Your task to perform on an android device: stop showing notifications on the lock screen Image 0: 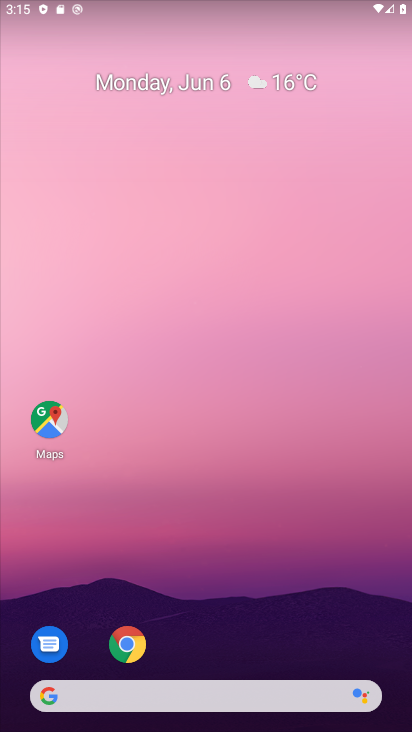
Step 0: drag from (130, 422) to (122, 88)
Your task to perform on an android device: stop showing notifications on the lock screen Image 1: 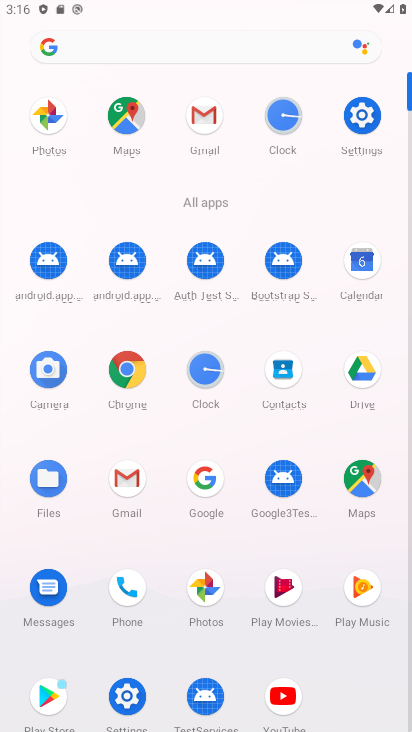
Step 1: click (132, 694)
Your task to perform on an android device: stop showing notifications on the lock screen Image 2: 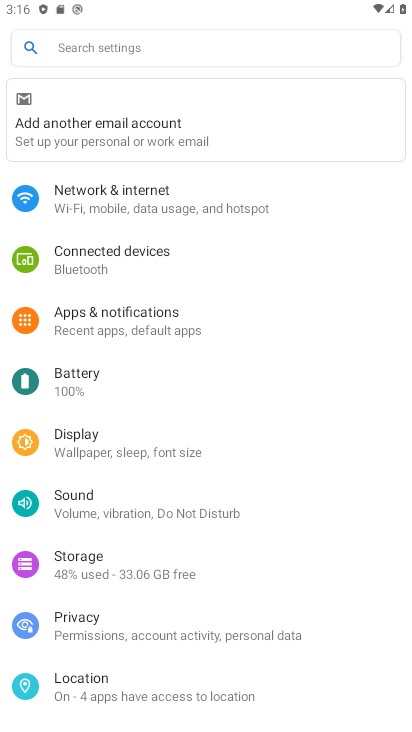
Step 2: click (142, 327)
Your task to perform on an android device: stop showing notifications on the lock screen Image 3: 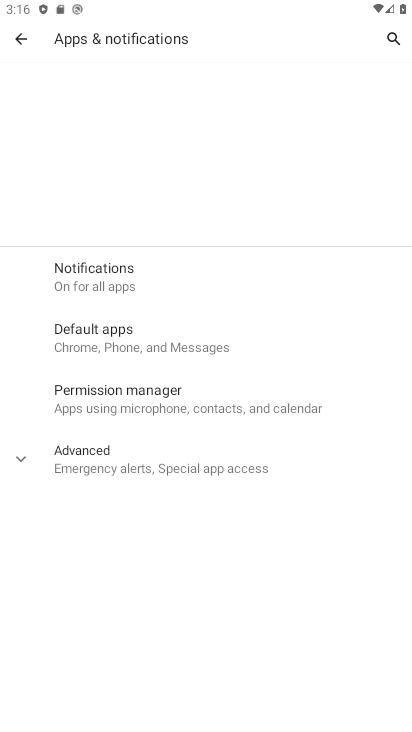
Step 3: click (95, 273)
Your task to perform on an android device: stop showing notifications on the lock screen Image 4: 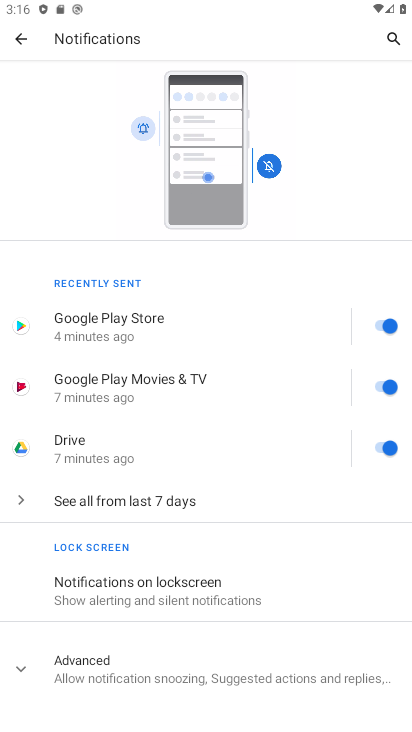
Step 4: click (175, 587)
Your task to perform on an android device: stop showing notifications on the lock screen Image 5: 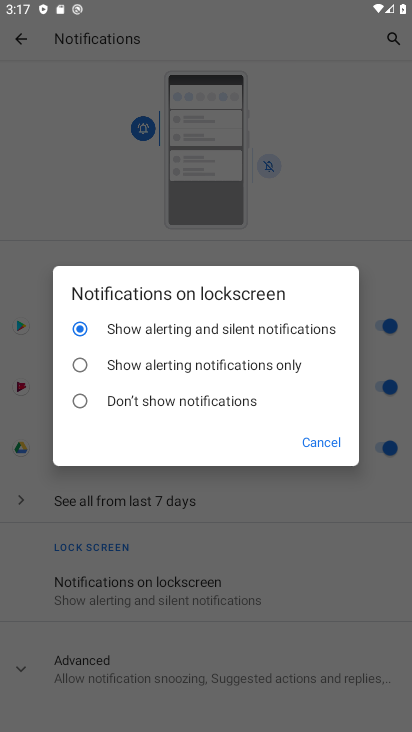
Step 5: task complete